Your task to perform on an android device: Open calendar and show me the first week of next month Image 0: 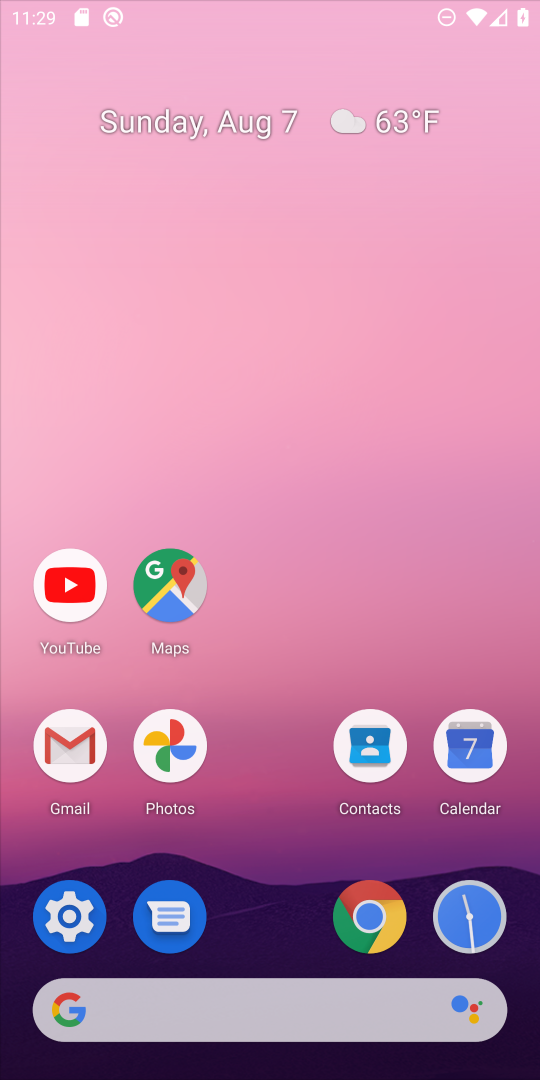
Step 0: press home button
Your task to perform on an android device: Open calendar and show me the first week of next month Image 1: 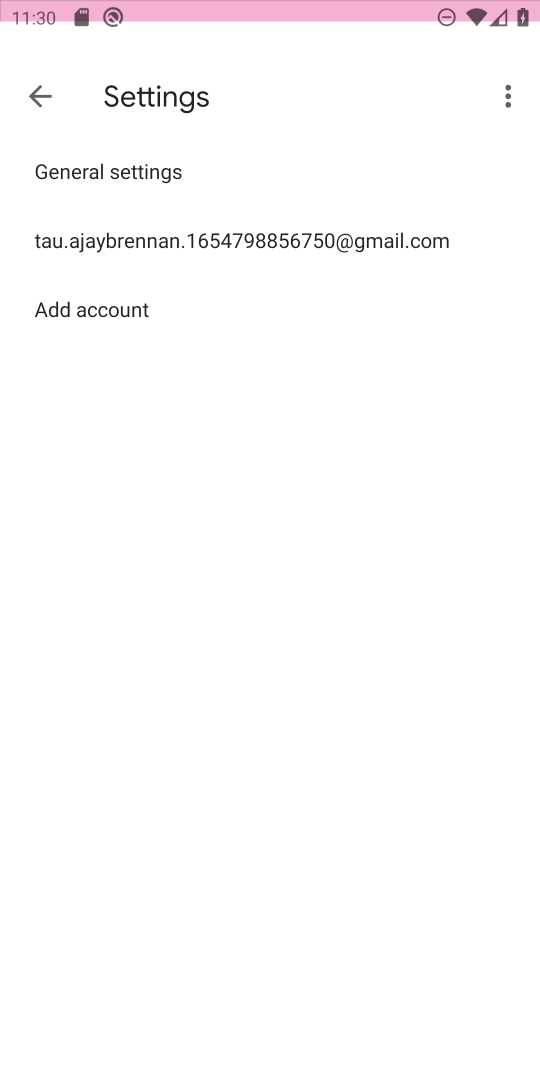
Step 1: click (167, 736)
Your task to perform on an android device: Open calendar and show me the first week of next month Image 2: 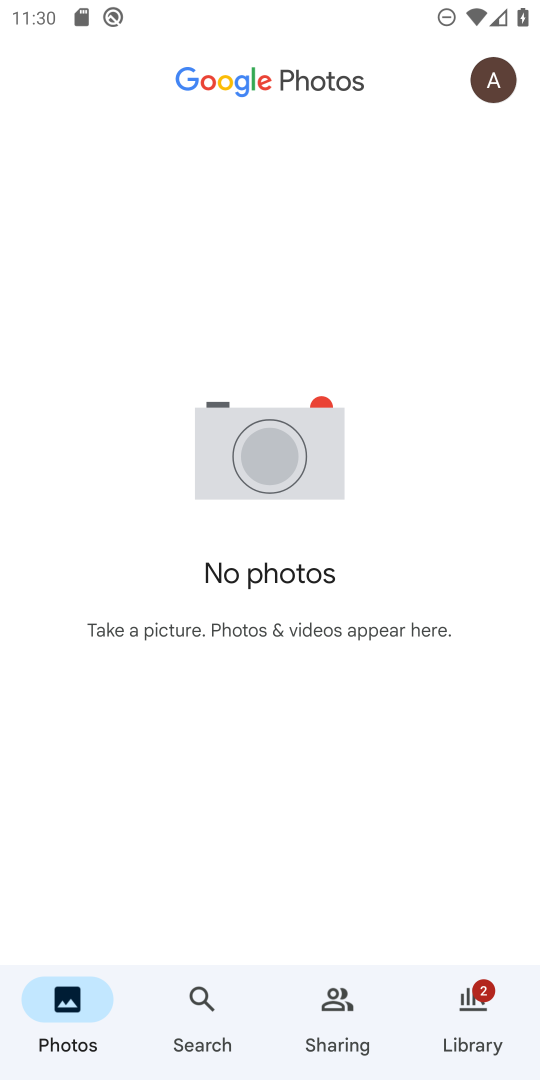
Step 2: press home button
Your task to perform on an android device: Open calendar and show me the first week of next month Image 3: 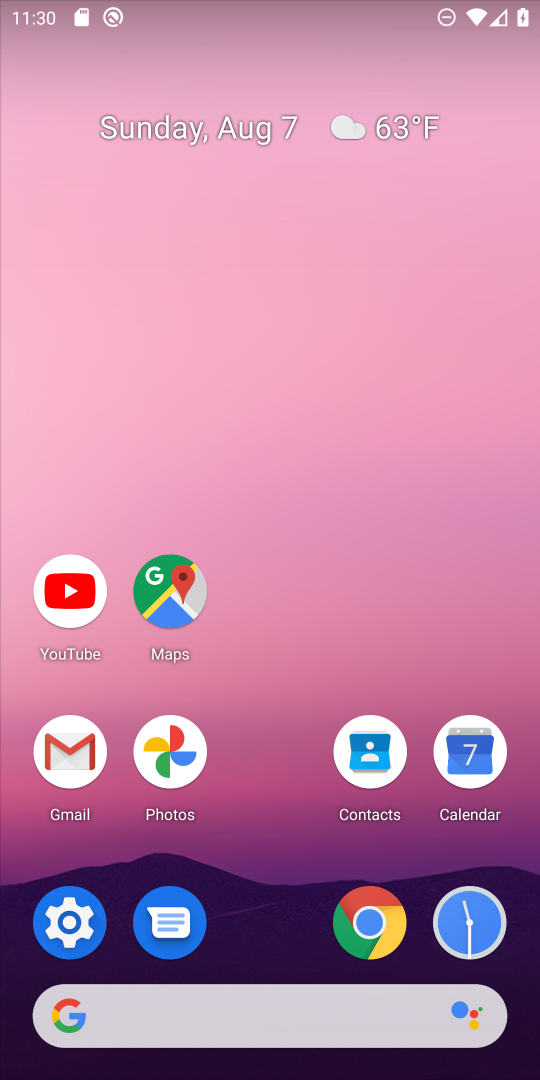
Step 3: click (469, 753)
Your task to perform on an android device: Open calendar and show me the first week of next month Image 4: 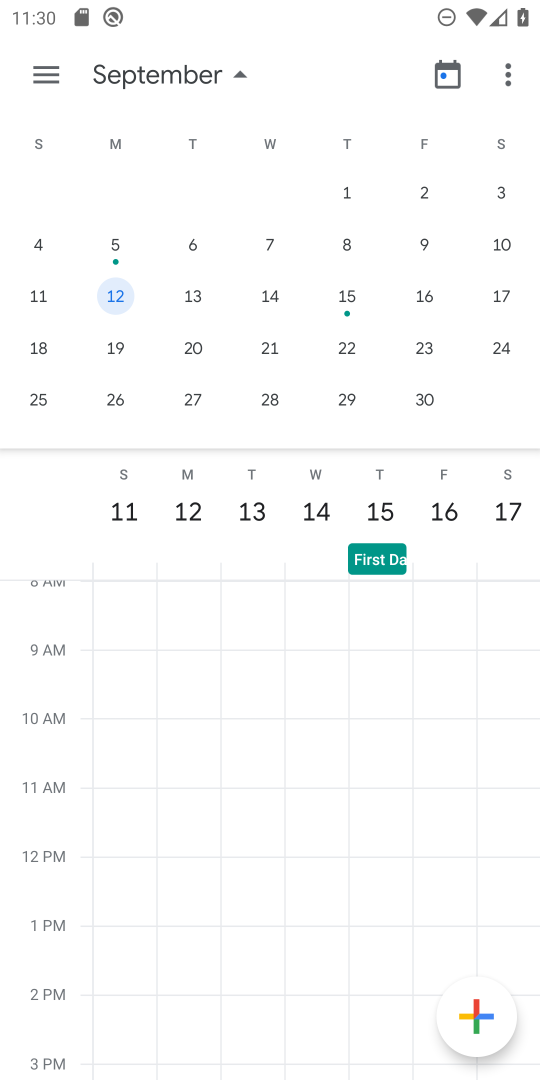
Step 4: click (345, 191)
Your task to perform on an android device: Open calendar and show me the first week of next month Image 5: 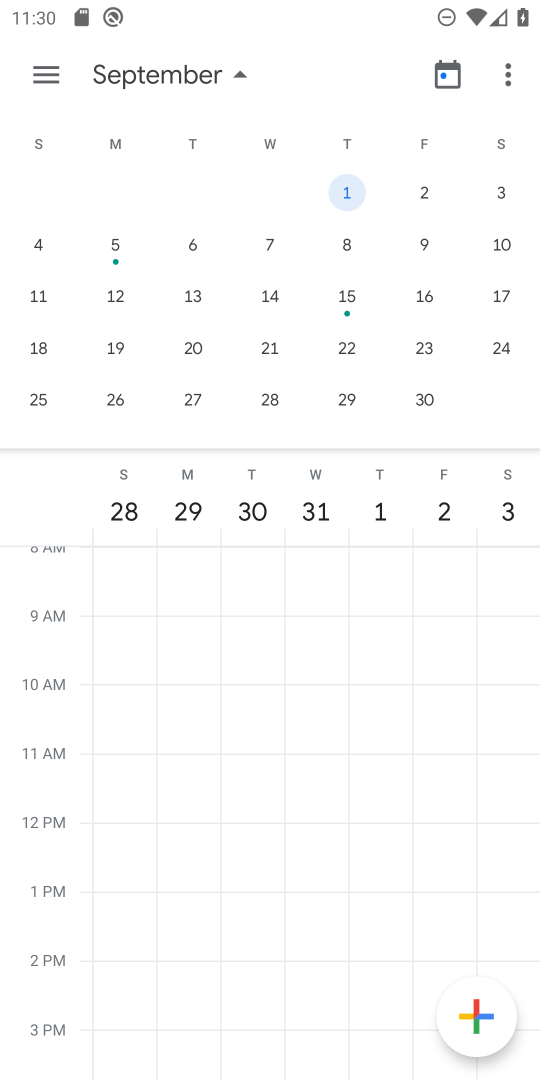
Step 5: task complete